Your task to perform on an android device: Open network settings Image 0: 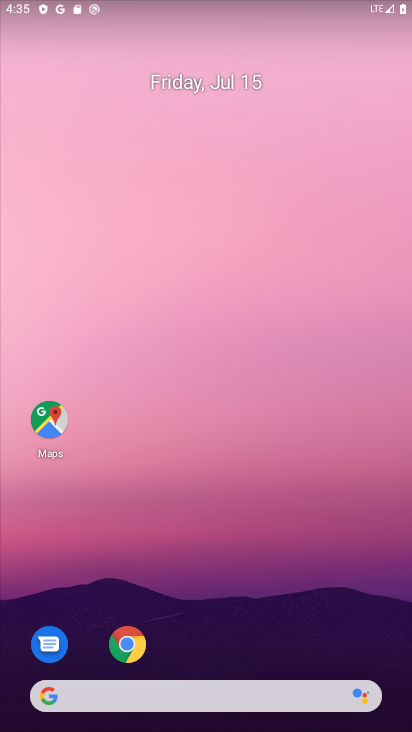
Step 0: drag from (173, 11) to (260, 520)
Your task to perform on an android device: Open network settings Image 1: 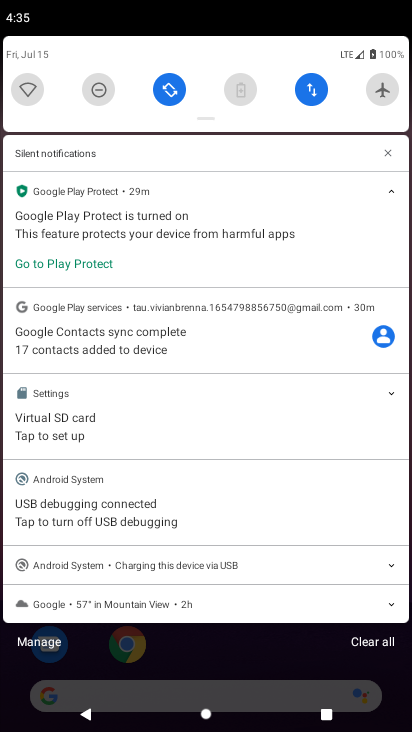
Step 1: click (319, 87)
Your task to perform on an android device: Open network settings Image 2: 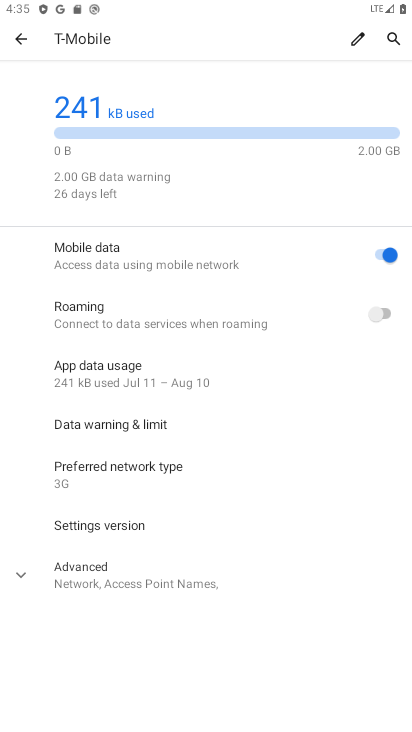
Step 2: task complete